Your task to perform on an android device: find snoozed emails in the gmail app Image 0: 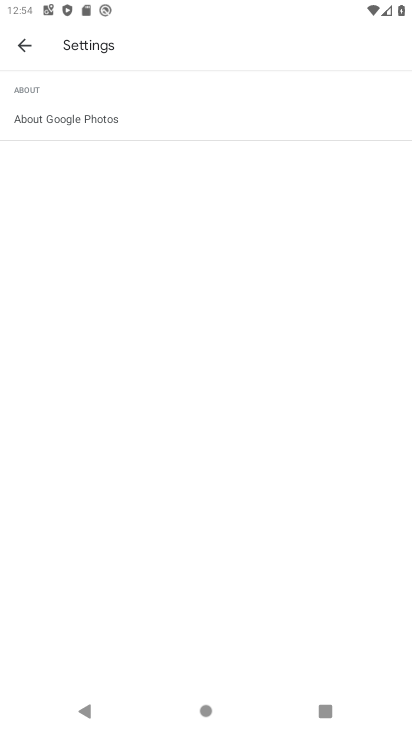
Step 0: press home button
Your task to perform on an android device: find snoozed emails in the gmail app Image 1: 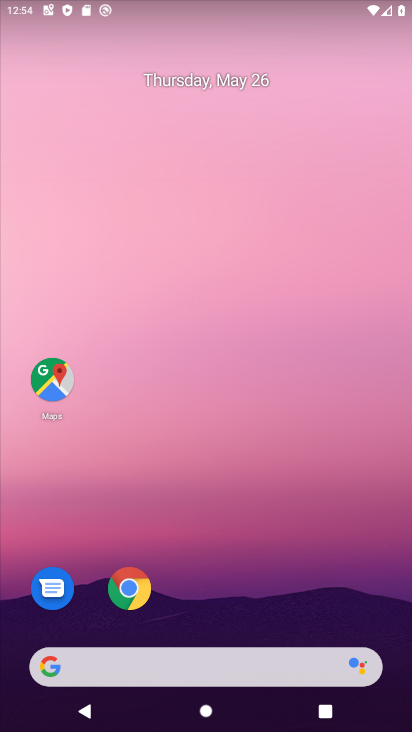
Step 1: drag from (395, 702) to (365, 122)
Your task to perform on an android device: find snoozed emails in the gmail app Image 2: 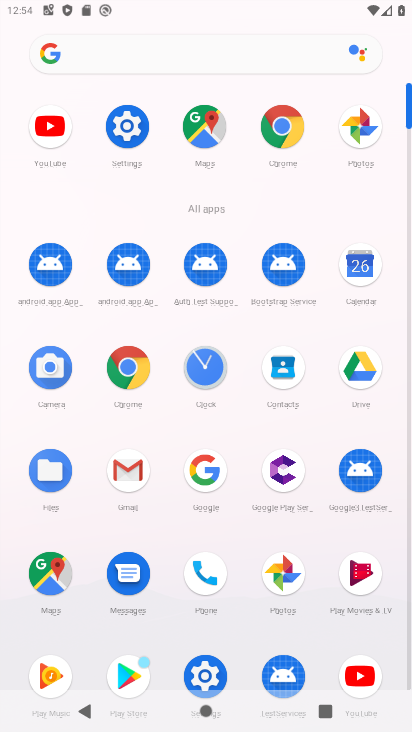
Step 2: click (127, 474)
Your task to perform on an android device: find snoozed emails in the gmail app Image 3: 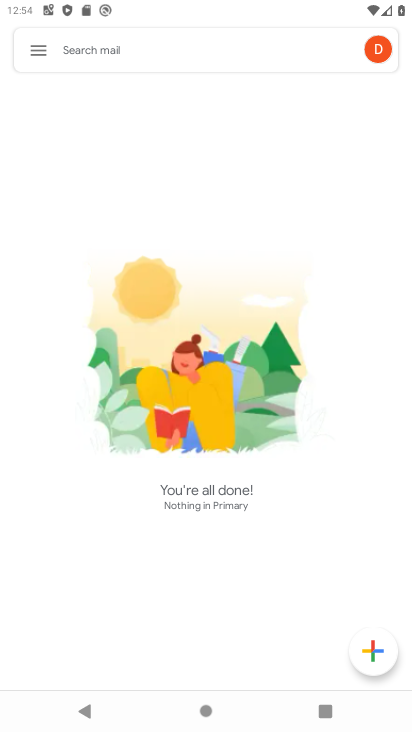
Step 3: click (32, 50)
Your task to perform on an android device: find snoozed emails in the gmail app Image 4: 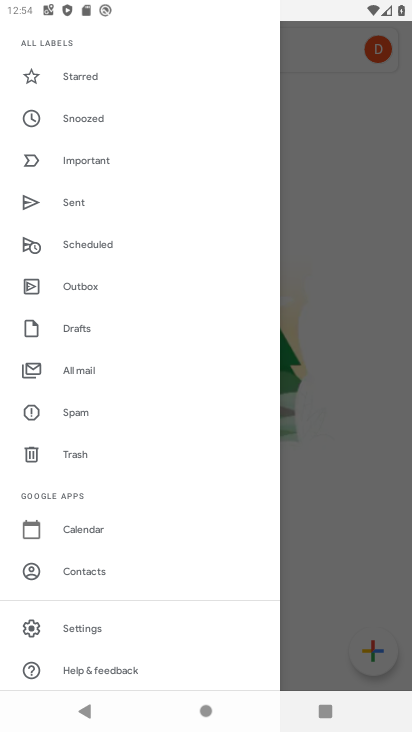
Step 4: click (82, 117)
Your task to perform on an android device: find snoozed emails in the gmail app Image 5: 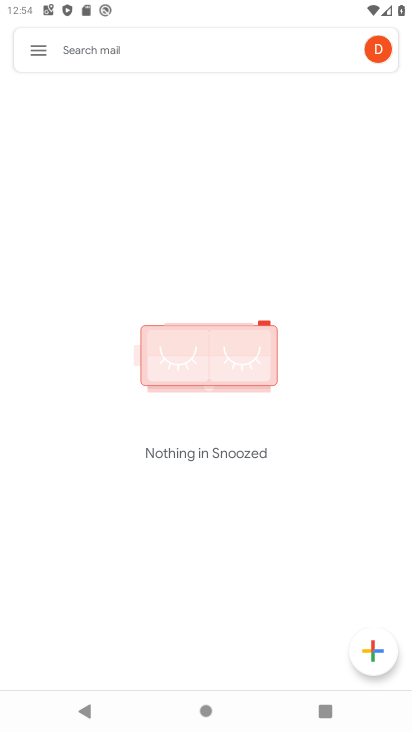
Step 5: task complete